Your task to perform on an android device: Open my contact list Image 0: 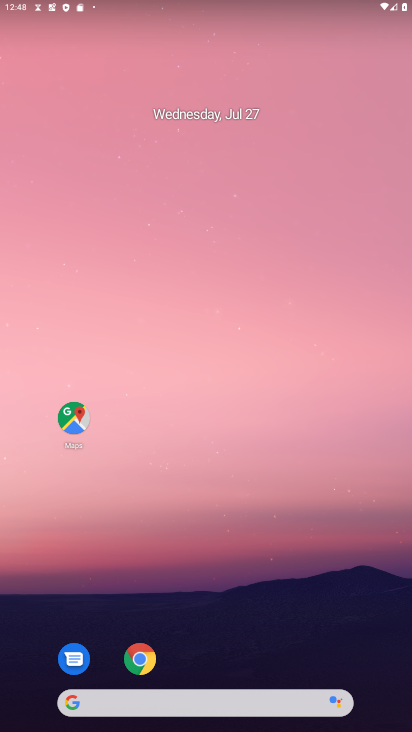
Step 0: press home button
Your task to perform on an android device: Open my contact list Image 1: 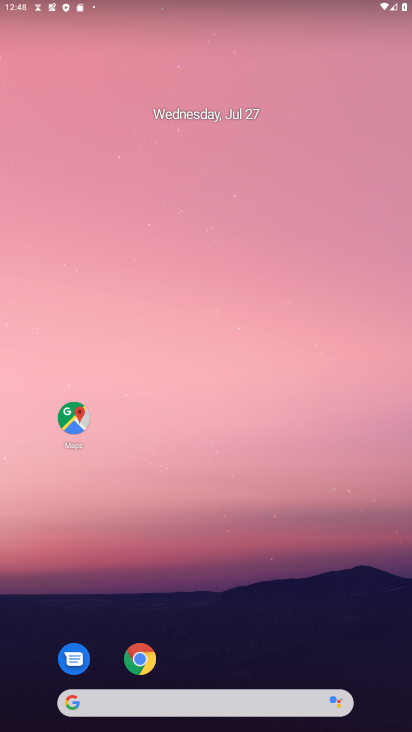
Step 1: drag from (209, 154) to (250, 7)
Your task to perform on an android device: Open my contact list Image 2: 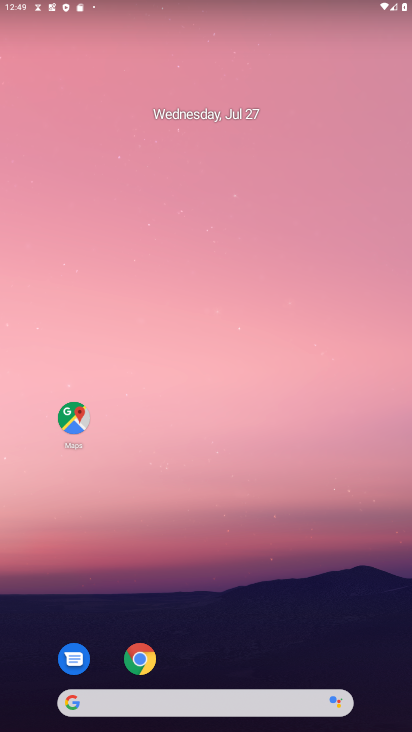
Step 2: drag from (233, 663) to (230, 124)
Your task to perform on an android device: Open my contact list Image 3: 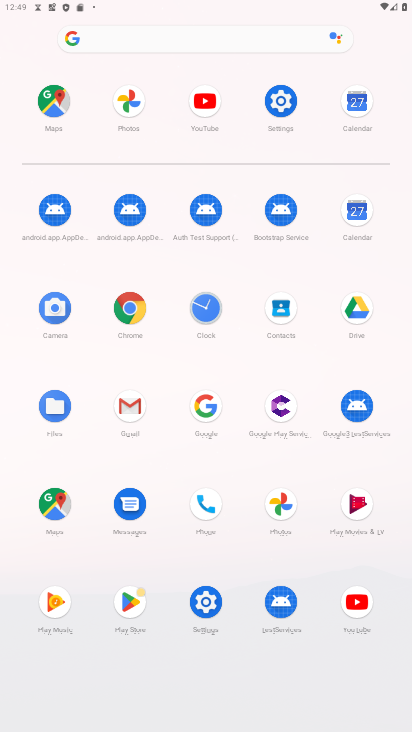
Step 3: click (277, 306)
Your task to perform on an android device: Open my contact list Image 4: 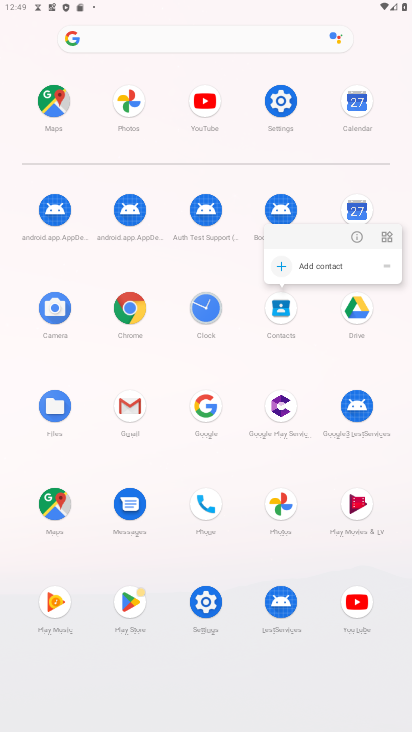
Step 4: click (279, 303)
Your task to perform on an android device: Open my contact list Image 5: 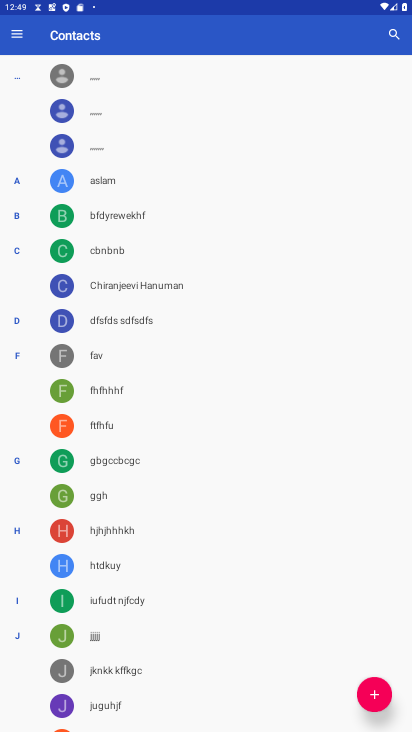
Step 5: task complete